Your task to perform on an android device: Show me productivity apps on the Play Store Image 0: 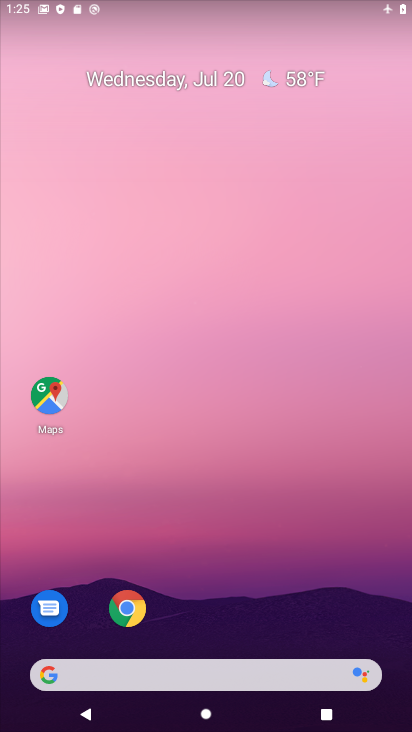
Step 0: click (230, 92)
Your task to perform on an android device: Show me productivity apps on the Play Store Image 1: 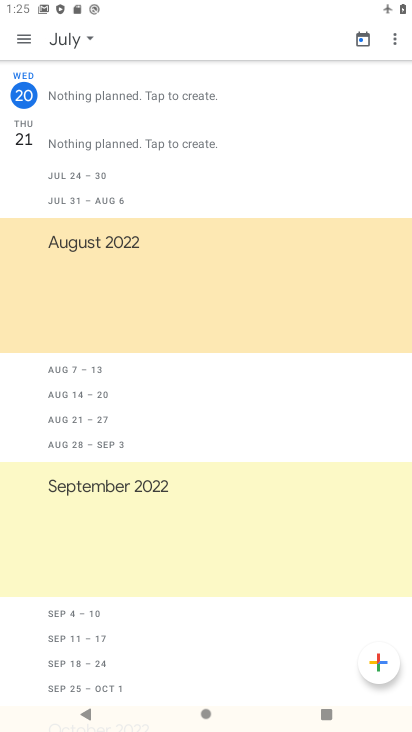
Step 1: press home button
Your task to perform on an android device: Show me productivity apps on the Play Store Image 2: 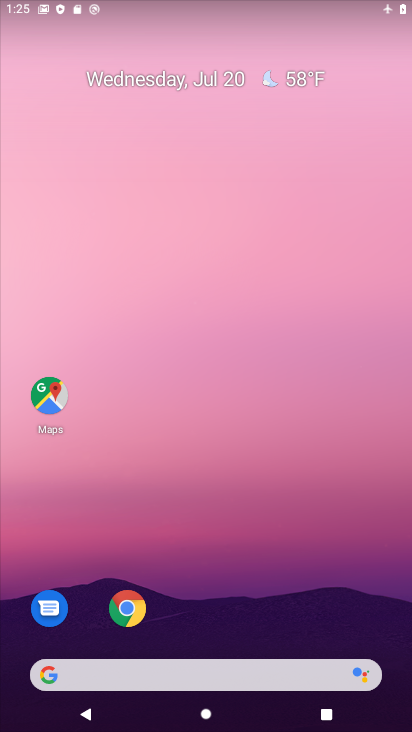
Step 2: drag from (238, 725) to (204, 152)
Your task to perform on an android device: Show me productivity apps on the Play Store Image 3: 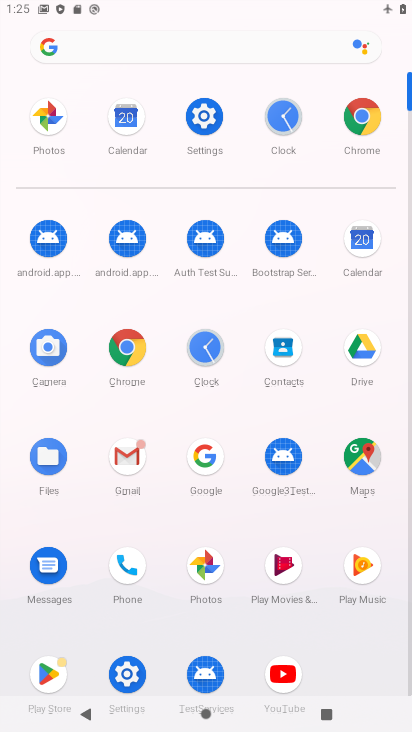
Step 3: click (46, 676)
Your task to perform on an android device: Show me productivity apps on the Play Store Image 4: 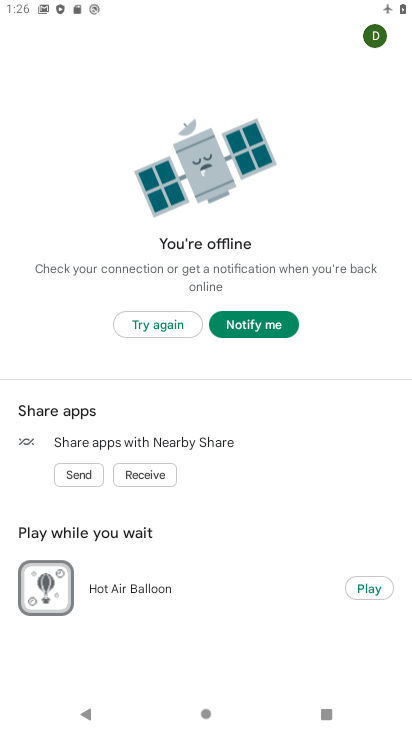
Step 4: task complete